Your task to perform on an android device: Empty the shopping cart on costco. Search for "usb-c to usb-a" on costco, select the first entry, and add it to the cart. Image 0: 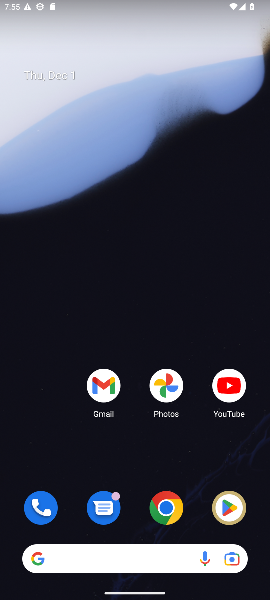
Step 0: click (166, 512)
Your task to perform on an android device: Empty the shopping cart on costco. Search for "usb-c to usb-a" on costco, select the first entry, and add it to the cart. Image 1: 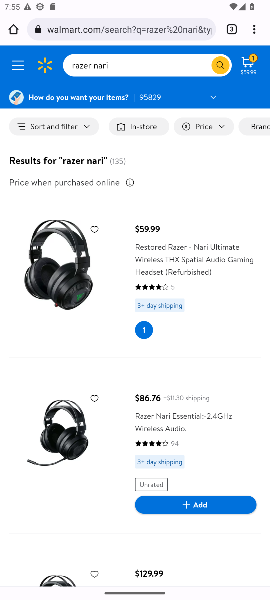
Step 1: click (228, 28)
Your task to perform on an android device: Empty the shopping cart on costco. Search for "usb-c to usb-a" on costco, select the first entry, and add it to the cart. Image 2: 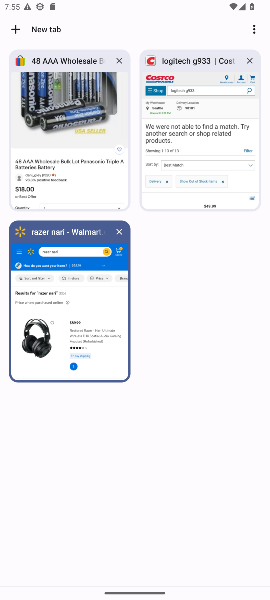
Step 2: click (211, 110)
Your task to perform on an android device: Empty the shopping cart on costco. Search for "usb-c to usb-a" on costco, select the first entry, and add it to the cart. Image 3: 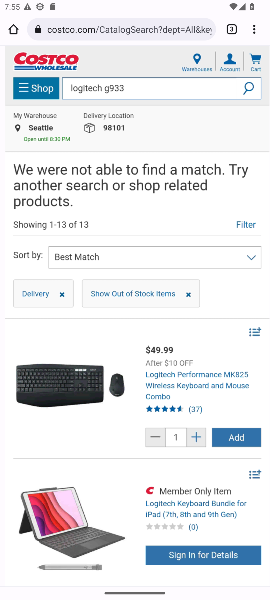
Step 3: click (255, 60)
Your task to perform on an android device: Empty the shopping cart on costco. Search for "usb-c to usb-a" on costco, select the first entry, and add it to the cart. Image 4: 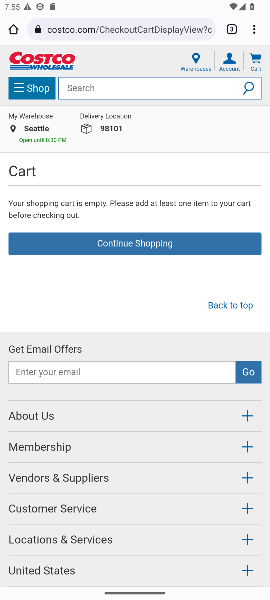
Step 4: click (126, 91)
Your task to perform on an android device: Empty the shopping cart on costco. Search for "usb-c to usb-a" on costco, select the first entry, and add it to the cart. Image 5: 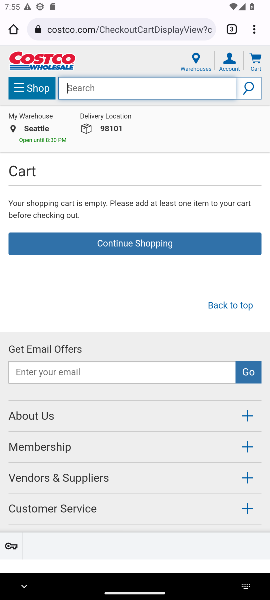
Step 5: click (118, 90)
Your task to perform on an android device: Empty the shopping cart on costco. Search for "usb-c to usb-a" on costco, select the first entry, and add it to the cart. Image 6: 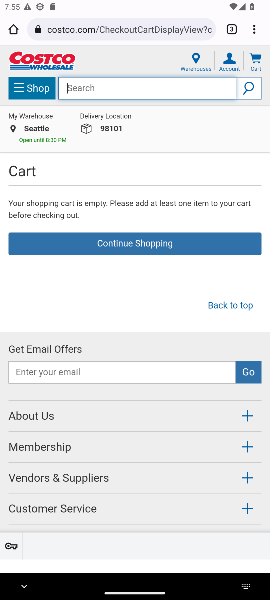
Step 6: type "usb-c to usb-a"
Your task to perform on an android device: Empty the shopping cart on costco. Search for "usb-c to usb-a" on costco, select the first entry, and add it to the cart. Image 7: 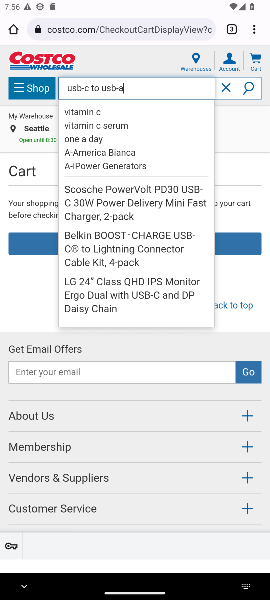
Step 7: click (247, 89)
Your task to perform on an android device: Empty the shopping cart on costco. Search for "usb-c to usb-a" on costco, select the first entry, and add it to the cart. Image 8: 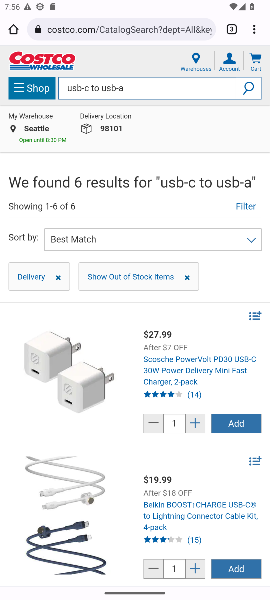
Step 8: click (77, 396)
Your task to perform on an android device: Empty the shopping cart on costco. Search for "usb-c to usb-a" on costco, select the first entry, and add it to the cart. Image 9: 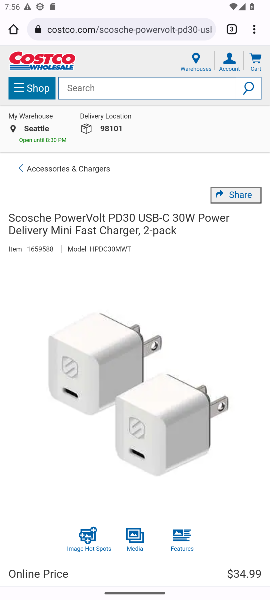
Step 9: drag from (130, 549) to (123, 198)
Your task to perform on an android device: Empty the shopping cart on costco. Search for "usb-c to usb-a" on costco, select the first entry, and add it to the cart. Image 10: 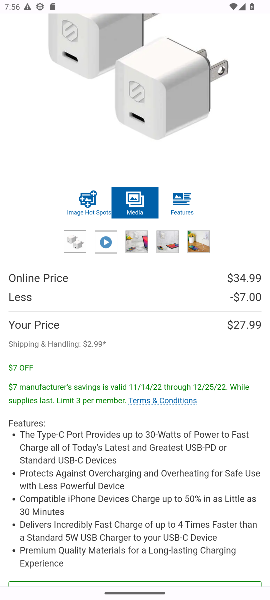
Step 10: drag from (131, 547) to (129, 219)
Your task to perform on an android device: Empty the shopping cart on costco. Search for "usb-c to usb-a" on costco, select the first entry, and add it to the cart. Image 11: 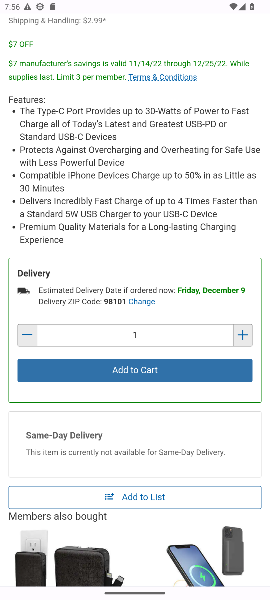
Step 11: click (164, 370)
Your task to perform on an android device: Empty the shopping cart on costco. Search for "usb-c to usb-a" on costco, select the first entry, and add it to the cart. Image 12: 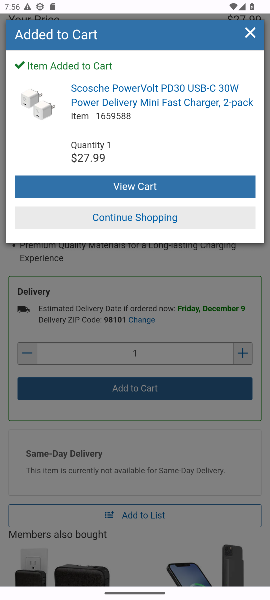
Step 12: task complete